Your task to perform on an android device: turn off location history Image 0: 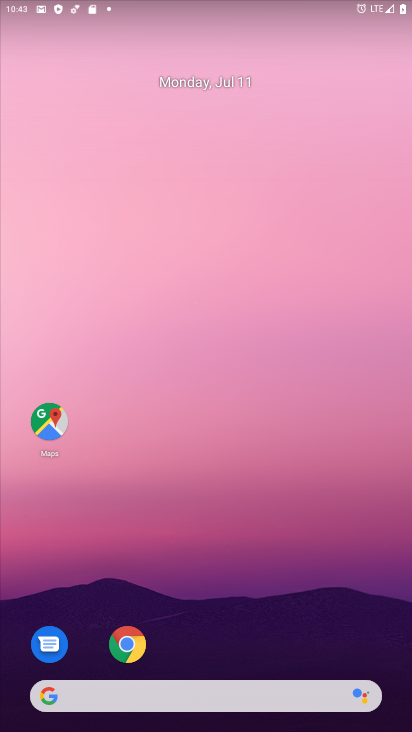
Step 0: drag from (227, 655) to (224, 76)
Your task to perform on an android device: turn off location history Image 1: 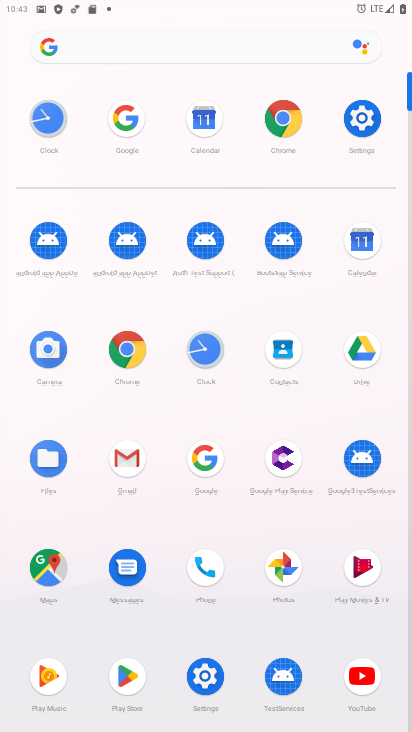
Step 1: click (362, 123)
Your task to perform on an android device: turn off location history Image 2: 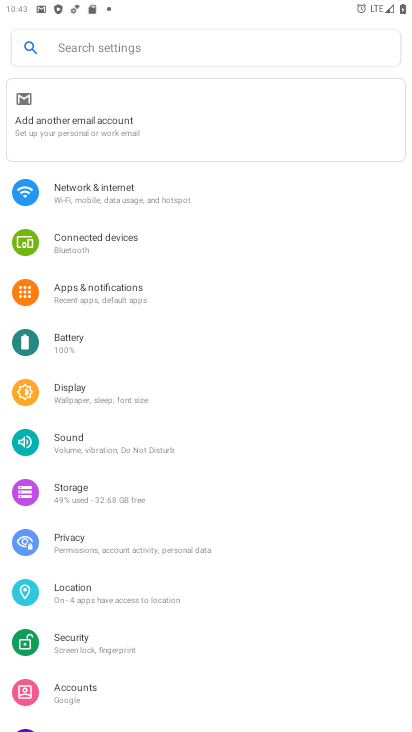
Step 2: click (148, 595)
Your task to perform on an android device: turn off location history Image 3: 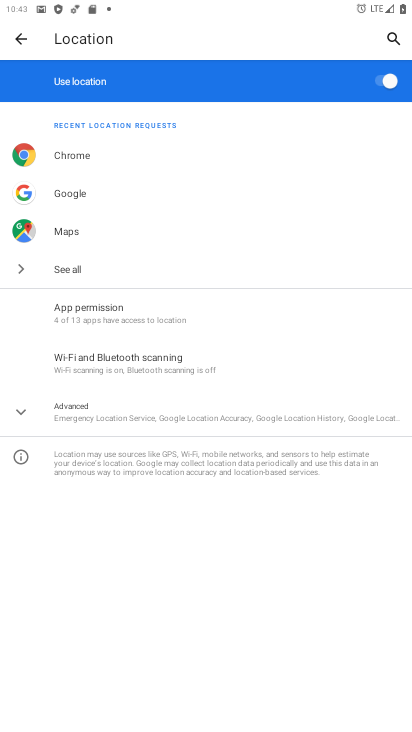
Step 3: click (150, 423)
Your task to perform on an android device: turn off location history Image 4: 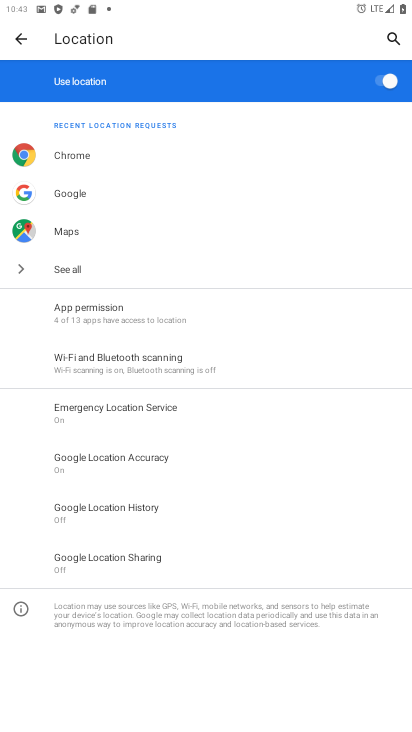
Step 4: click (148, 498)
Your task to perform on an android device: turn off location history Image 5: 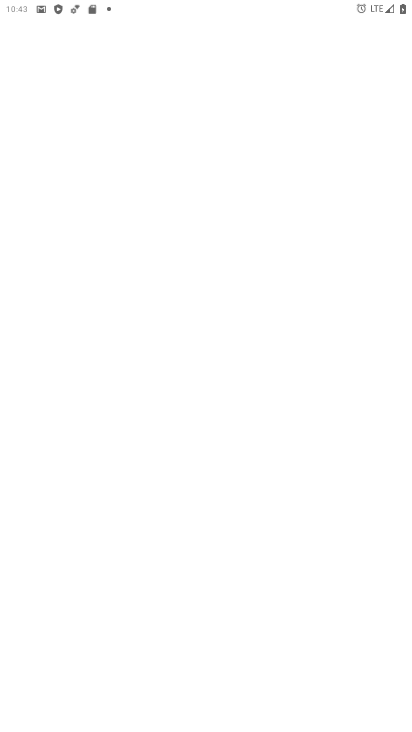
Step 5: task complete